Your task to perform on an android device: Show me popular videos on Youtube Image 0: 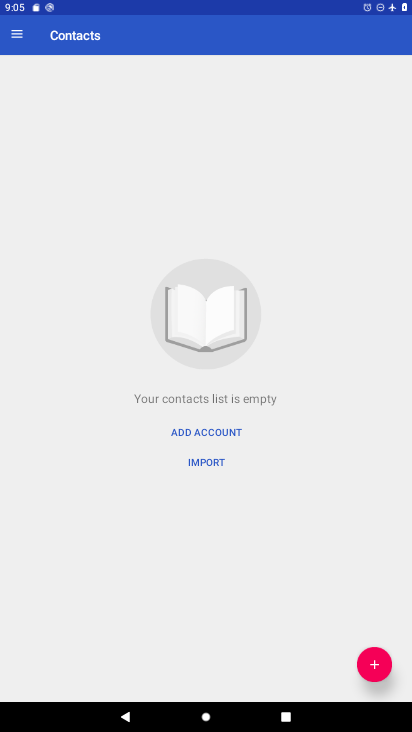
Step 0: press home button
Your task to perform on an android device: Show me popular videos on Youtube Image 1: 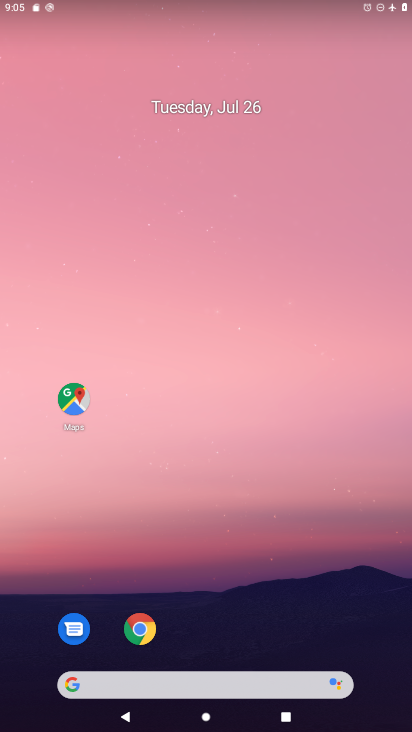
Step 1: drag from (213, 672) to (410, 103)
Your task to perform on an android device: Show me popular videos on Youtube Image 2: 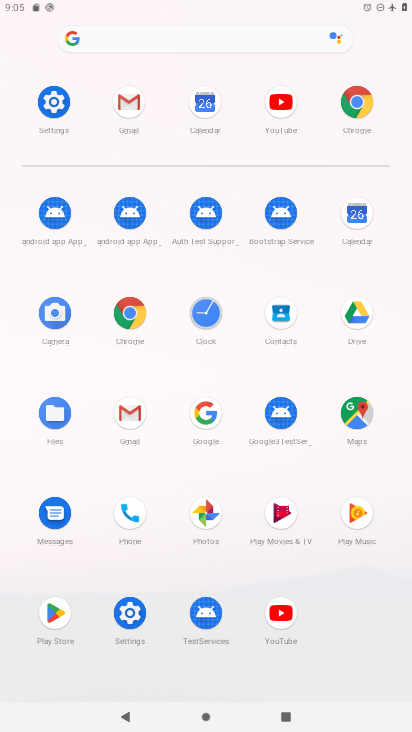
Step 2: click (289, 597)
Your task to perform on an android device: Show me popular videos on Youtube Image 3: 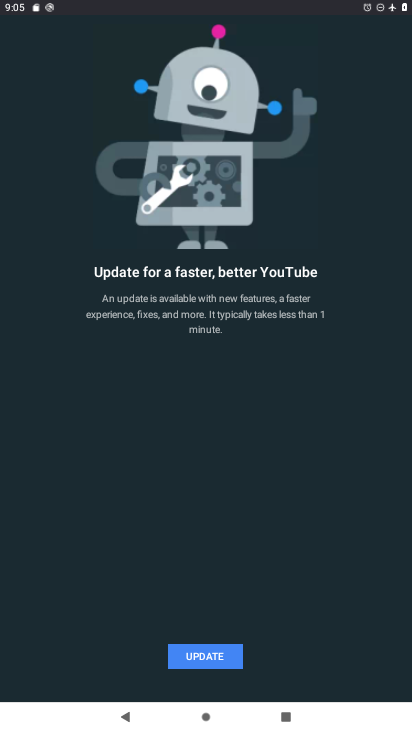
Step 3: click (206, 648)
Your task to perform on an android device: Show me popular videos on Youtube Image 4: 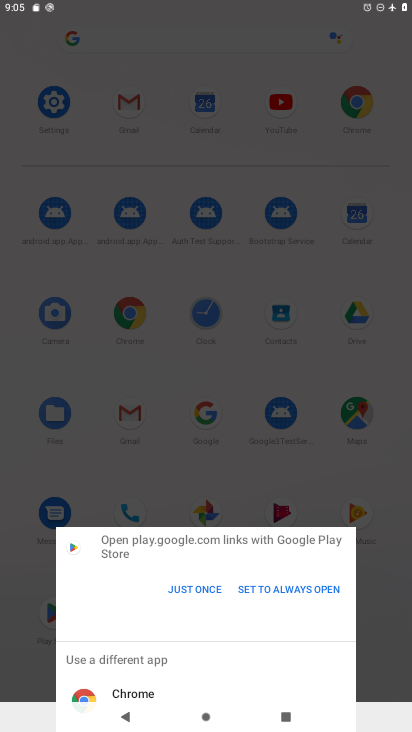
Step 4: click (215, 587)
Your task to perform on an android device: Show me popular videos on Youtube Image 5: 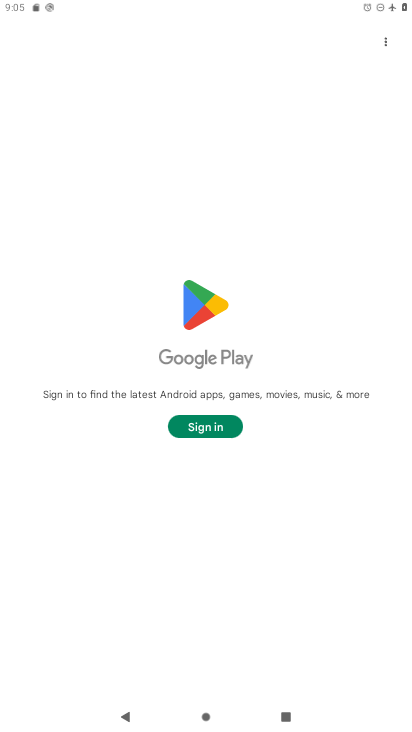
Step 5: task complete